Your task to perform on an android device: When is my next meeting? Image 0: 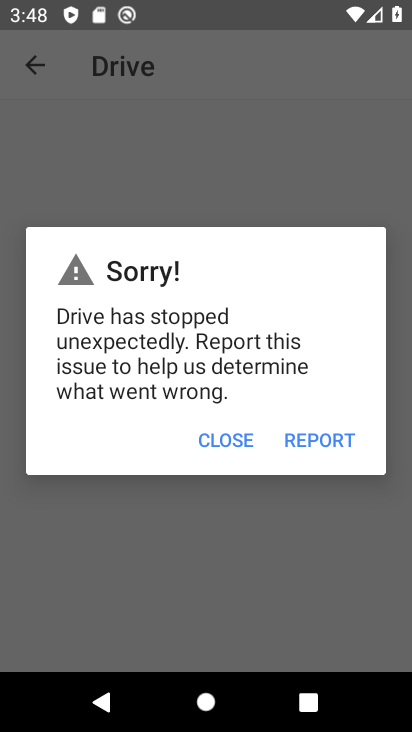
Step 0: press home button
Your task to perform on an android device: When is my next meeting? Image 1: 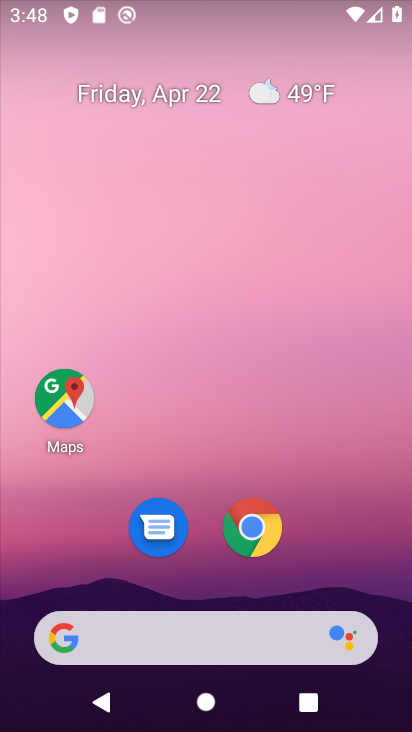
Step 1: drag from (194, 432) to (247, 23)
Your task to perform on an android device: When is my next meeting? Image 2: 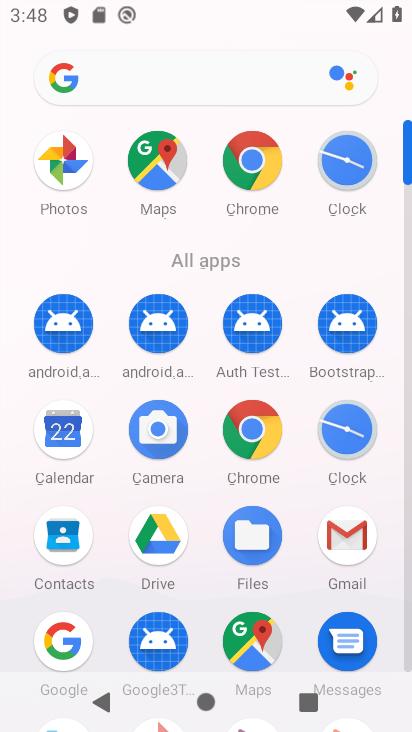
Step 2: drag from (206, 524) to (190, 274)
Your task to perform on an android device: When is my next meeting? Image 3: 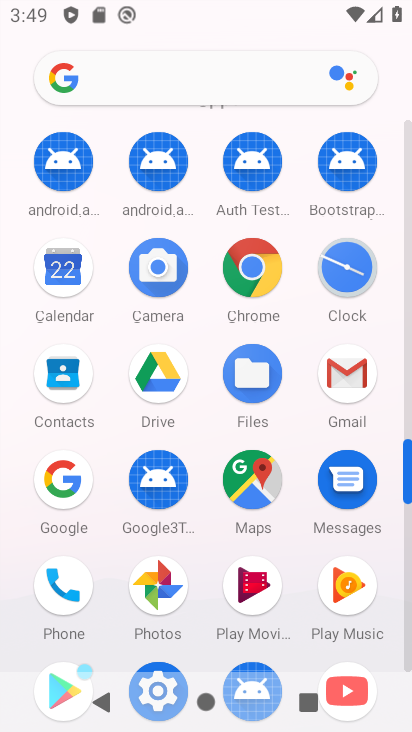
Step 3: click (347, 376)
Your task to perform on an android device: When is my next meeting? Image 4: 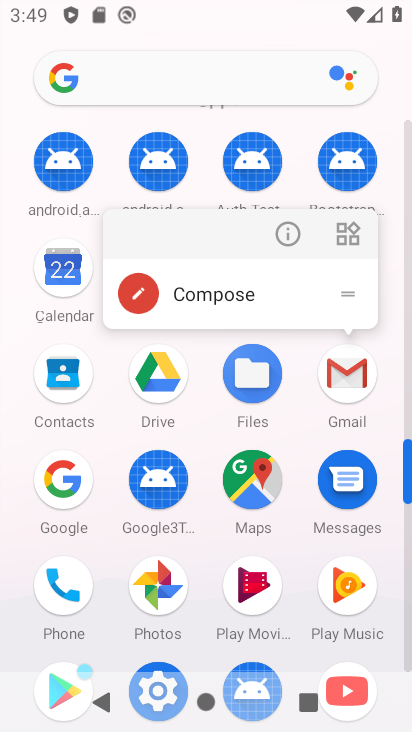
Step 4: click (49, 290)
Your task to perform on an android device: When is my next meeting? Image 5: 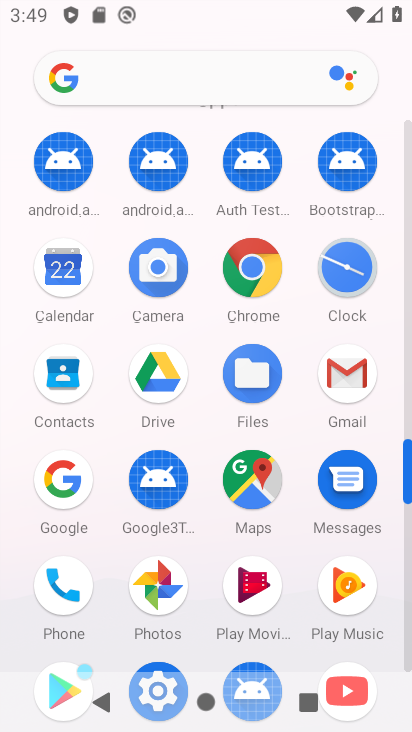
Step 5: click (49, 290)
Your task to perform on an android device: When is my next meeting? Image 6: 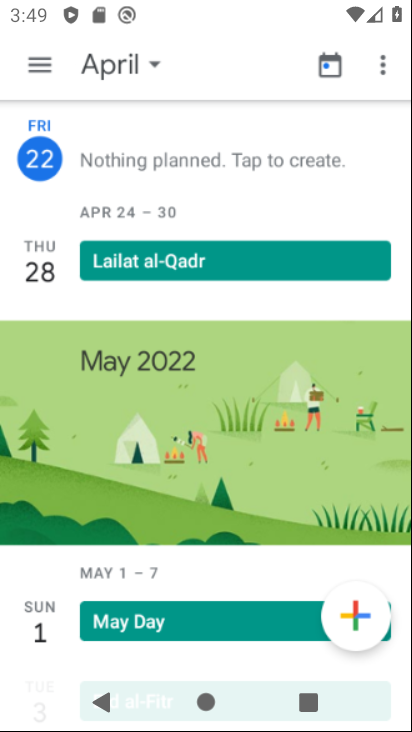
Step 6: click (60, 279)
Your task to perform on an android device: When is my next meeting? Image 7: 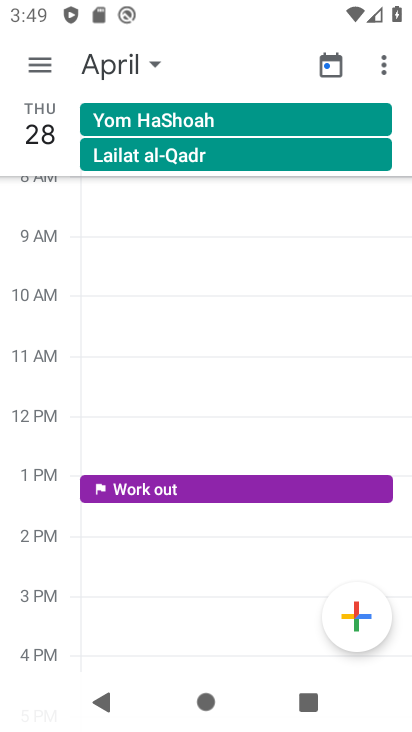
Step 7: click (121, 67)
Your task to perform on an android device: When is my next meeting? Image 8: 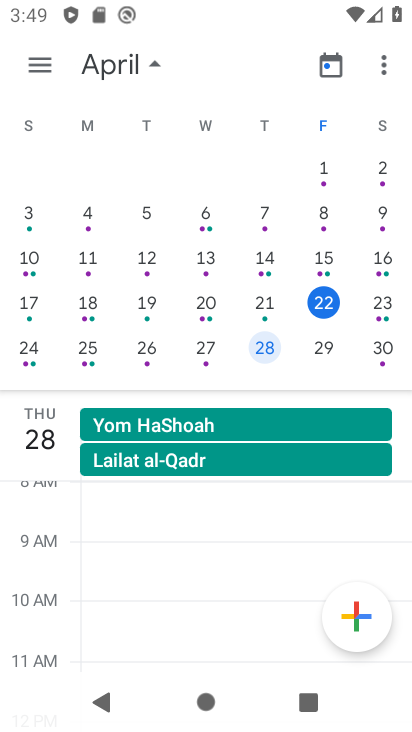
Step 8: click (328, 307)
Your task to perform on an android device: When is my next meeting? Image 9: 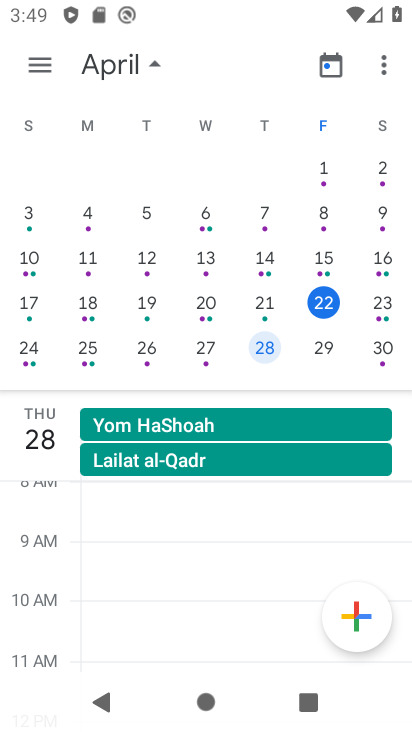
Step 9: click (332, 305)
Your task to perform on an android device: When is my next meeting? Image 10: 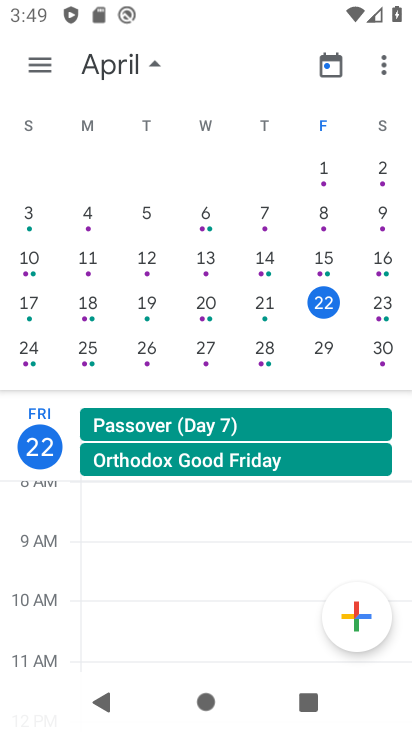
Step 10: drag from (180, 464) to (178, 160)
Your task to perform on an android device: When is my next meeting? Image 11: 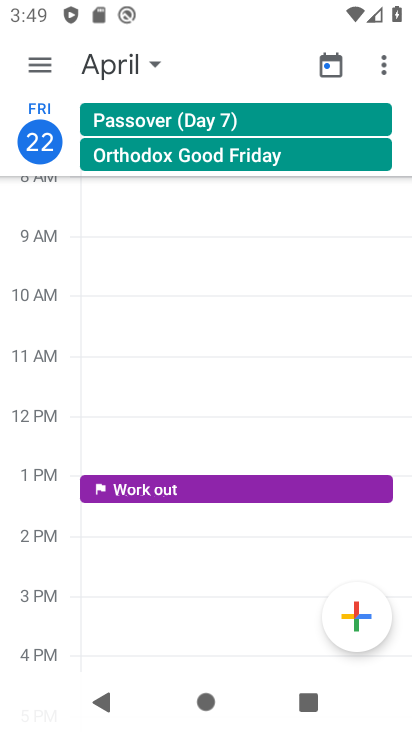
Step 11: drag from (174, 567) to (207, 54)
Your task to perform on an android device: When is my next meeting? Image 12: 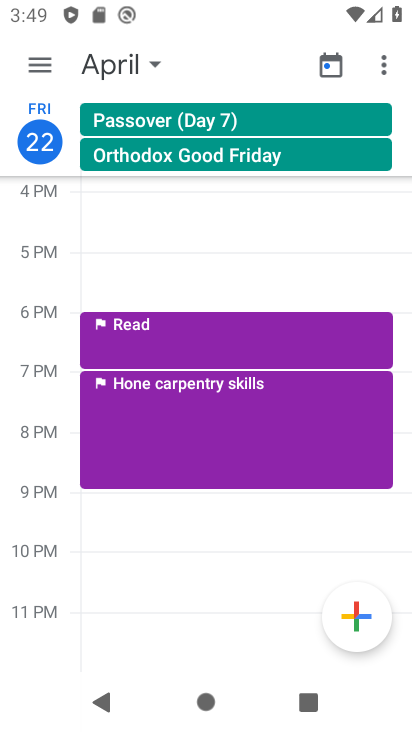
Step 12: drag from (182, 609) to (124, 73)
Your task to perform on an android device: When is my next meeting? Image 13: 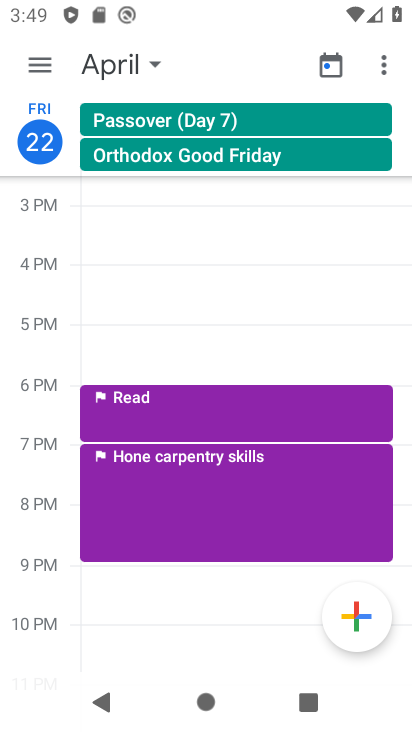
Step 13: click (43, 54)
Your task to perform on an android device: When is my next meeting? Image 14: 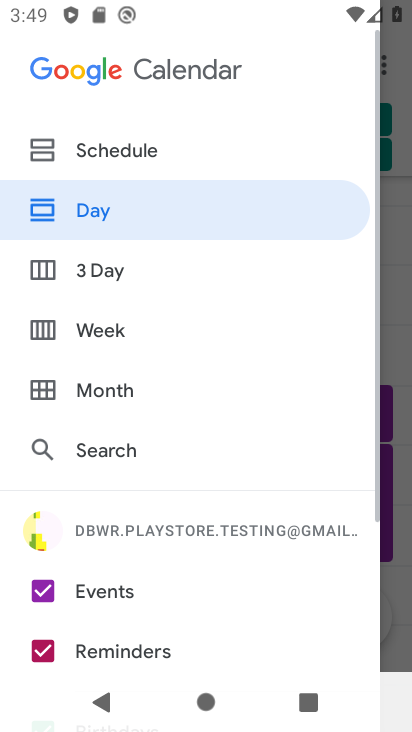
Step 14: click (97, 151)
Your task to perform on an android device: When is my next meeting? Image 15: 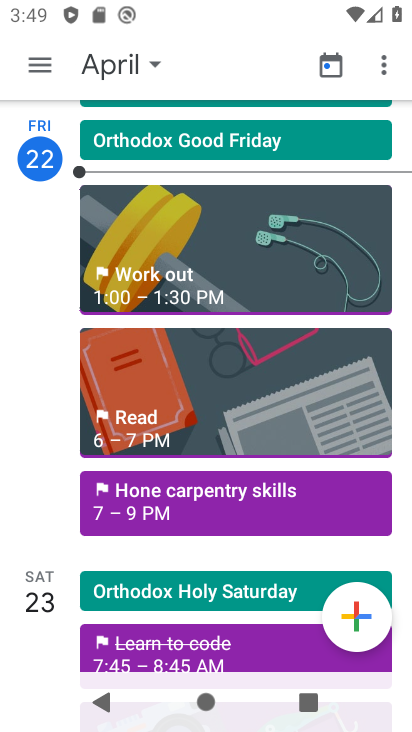
Step 15: drag from (240, 552) to (212, 104)
Your task to perform on an android device: When is my next meeting? Image 16: 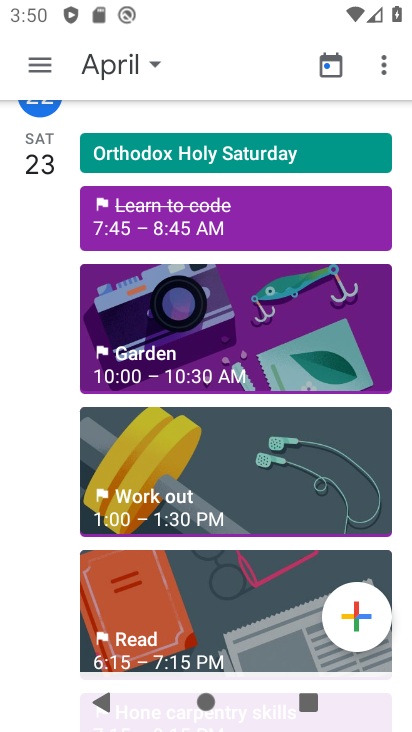
Step 16: drag from (212, 600) to (206, 96)
Your task to perform on an android device: When is my next meeting? Image 17: 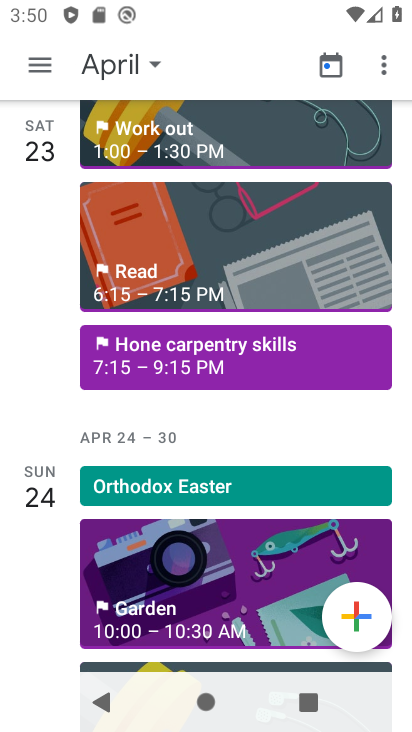
Step 17: drag from (207, 554) to (180, 232)
Your task to perform on an android device: When is my next meeting? Image 18: 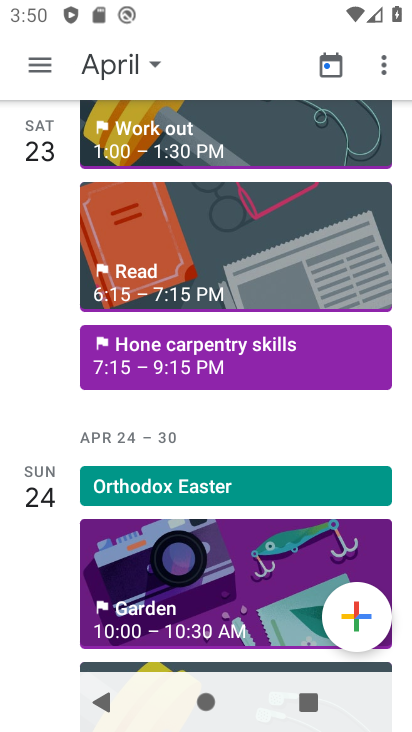
Step 18: drag from (201, 653) to (184, 232)
Your task to perform on an android device: When is my next meeting? Image 19: 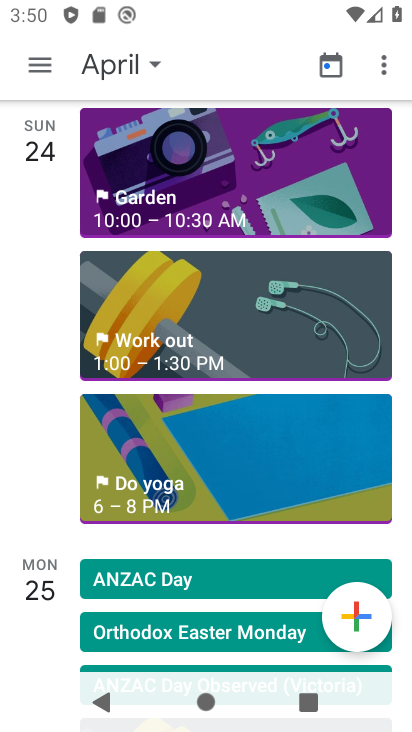
Step 19: drag from (174, 595) to (176, 222)
Your task to perform on an android device: When is my next meeting? Image 20: 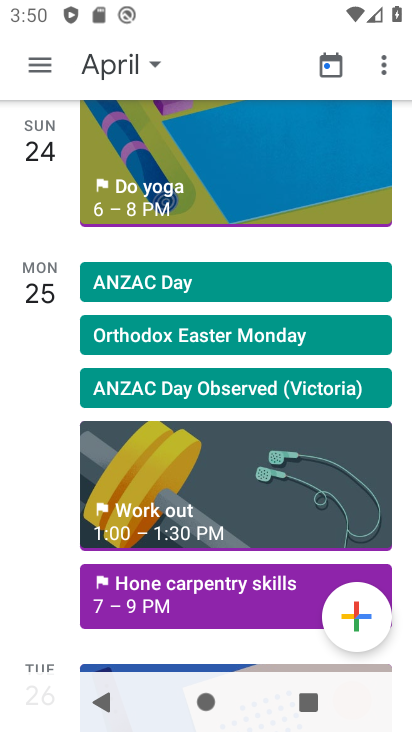
Step 20: drag from (190, 616) to (188, 202)
Your task to perform on an android device: When is my next meeting? Image 21: 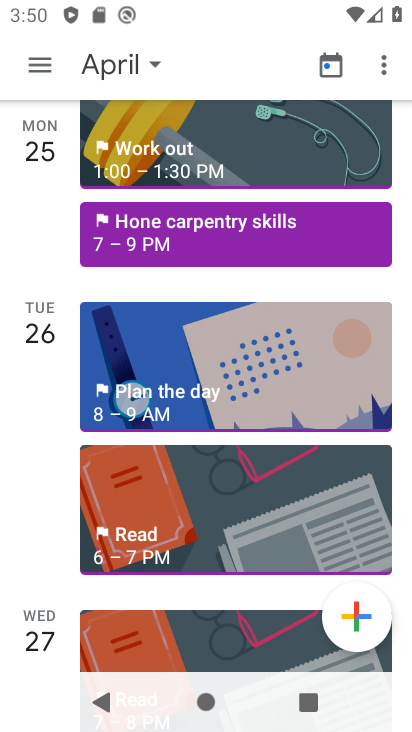
Step 21: drag from (192, 589) to (200, 185)
Your task to perform on an android device: When is my next meeting? Image 22: 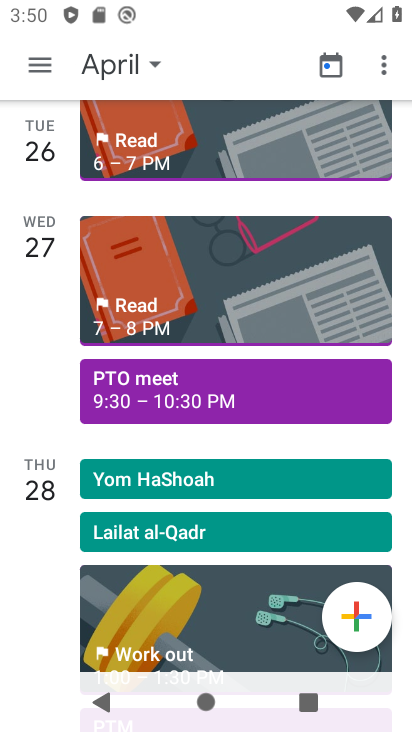
Step 22: click (154, 377)
Your task to perform on an android device: When is my next meeting? Image 23: 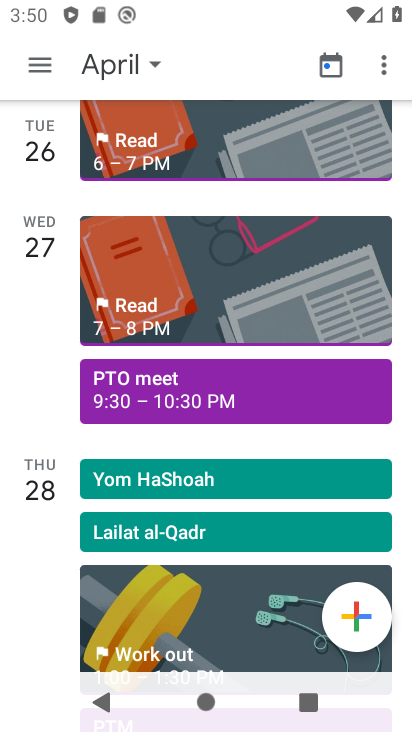
Step 23: click (184, 405)
Your task to perform on an android device: When is my next meeting? Image 24: 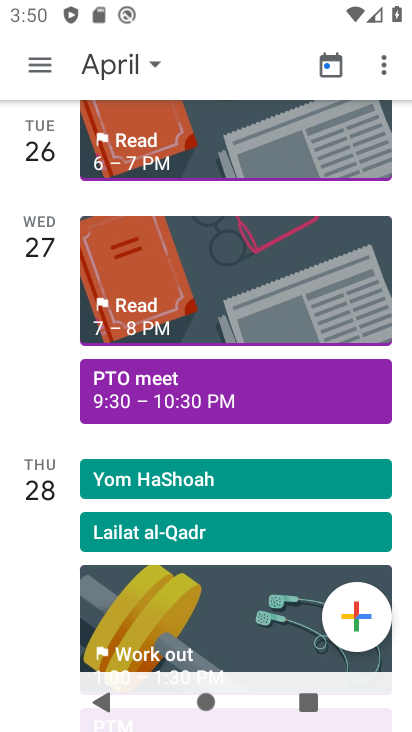
Step 24: click (278, 396)
Your task to perform on an android device: When is my next meeting? Image 25: 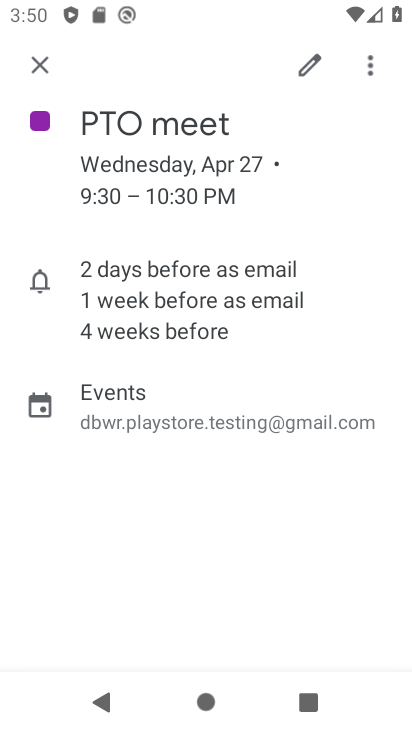
Step 25: task complete